Your task to perform on an android device: Search for the best 4K TV Image 0: 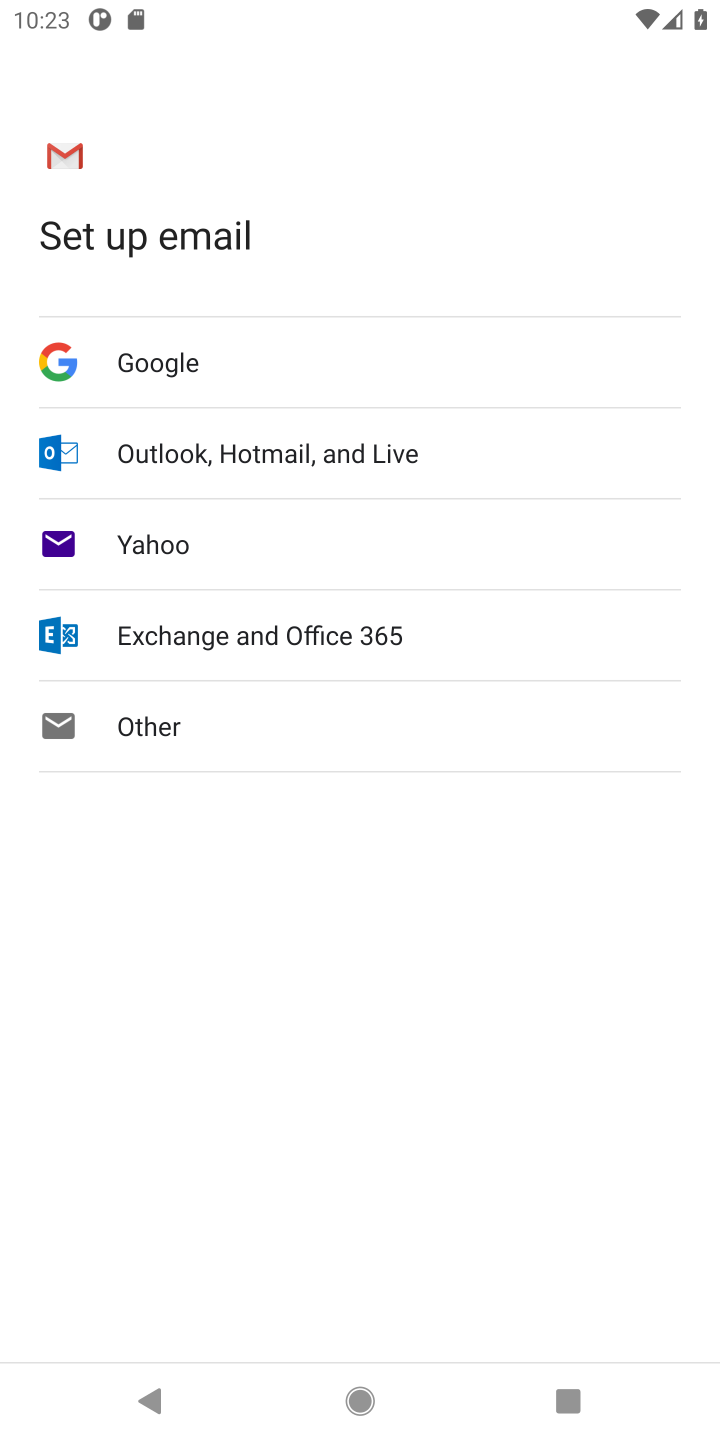
Step 0: press home button
Your task to perform on an android device: Search for the best 4K TV Image 1: 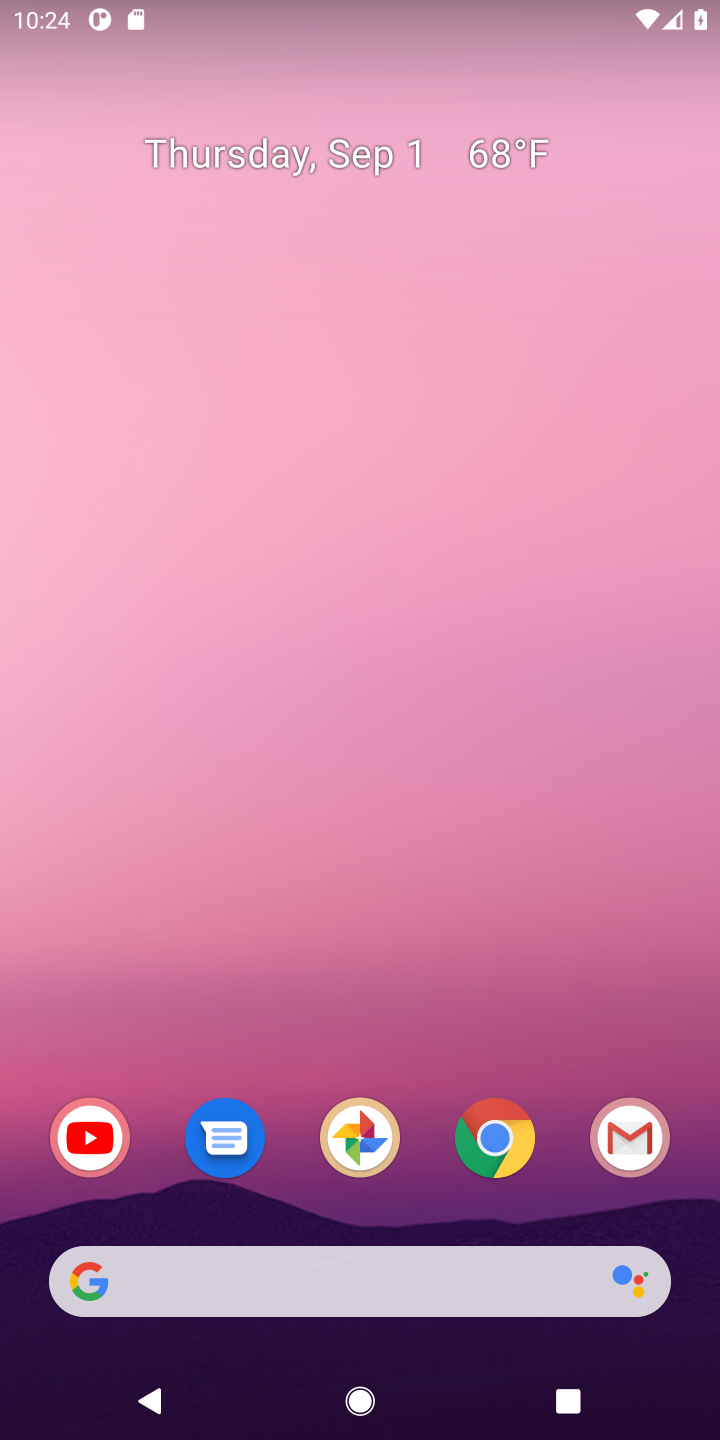
Step 1: click (501, 1139)
Your task to perform on an android device: Search for the best 4K TV Image 2: 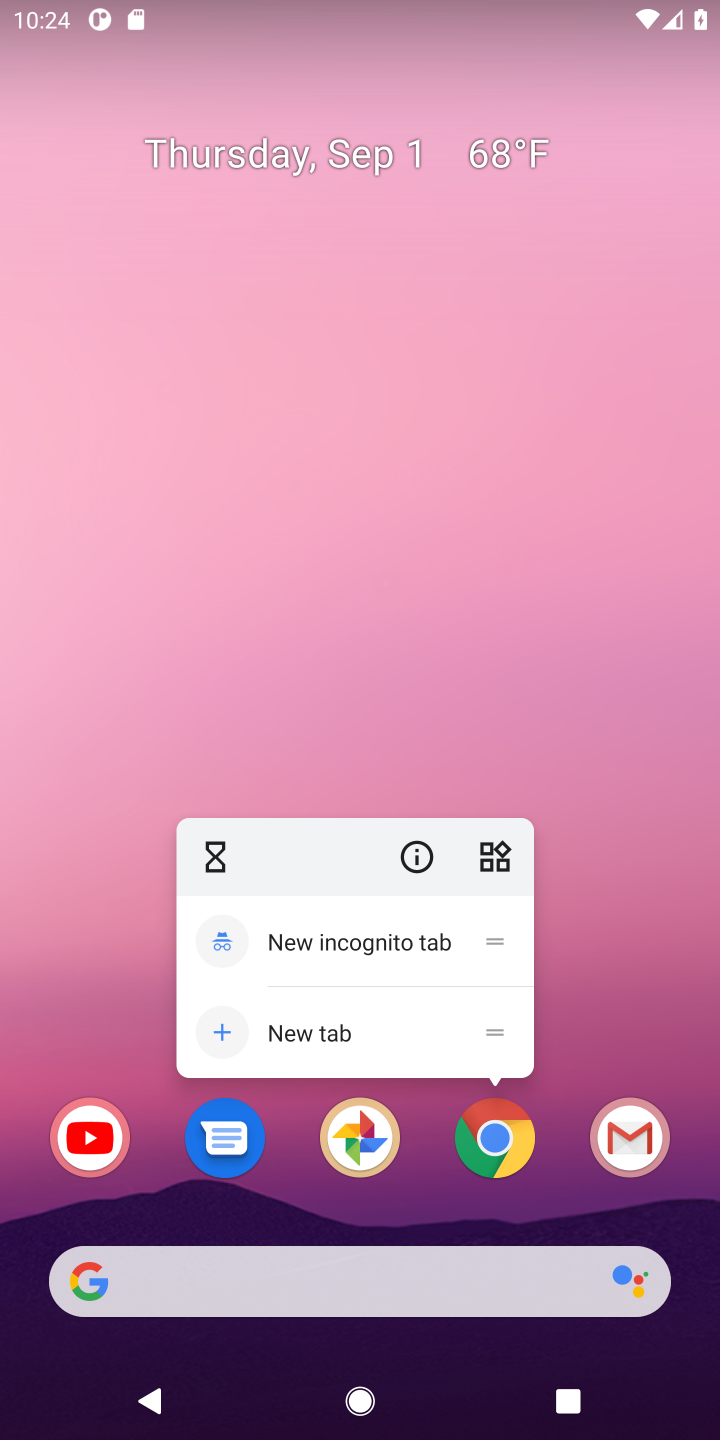
Step 2: click (501, 1139)
Your task to perform on an android device: Search for the best 4K TV Image 3: 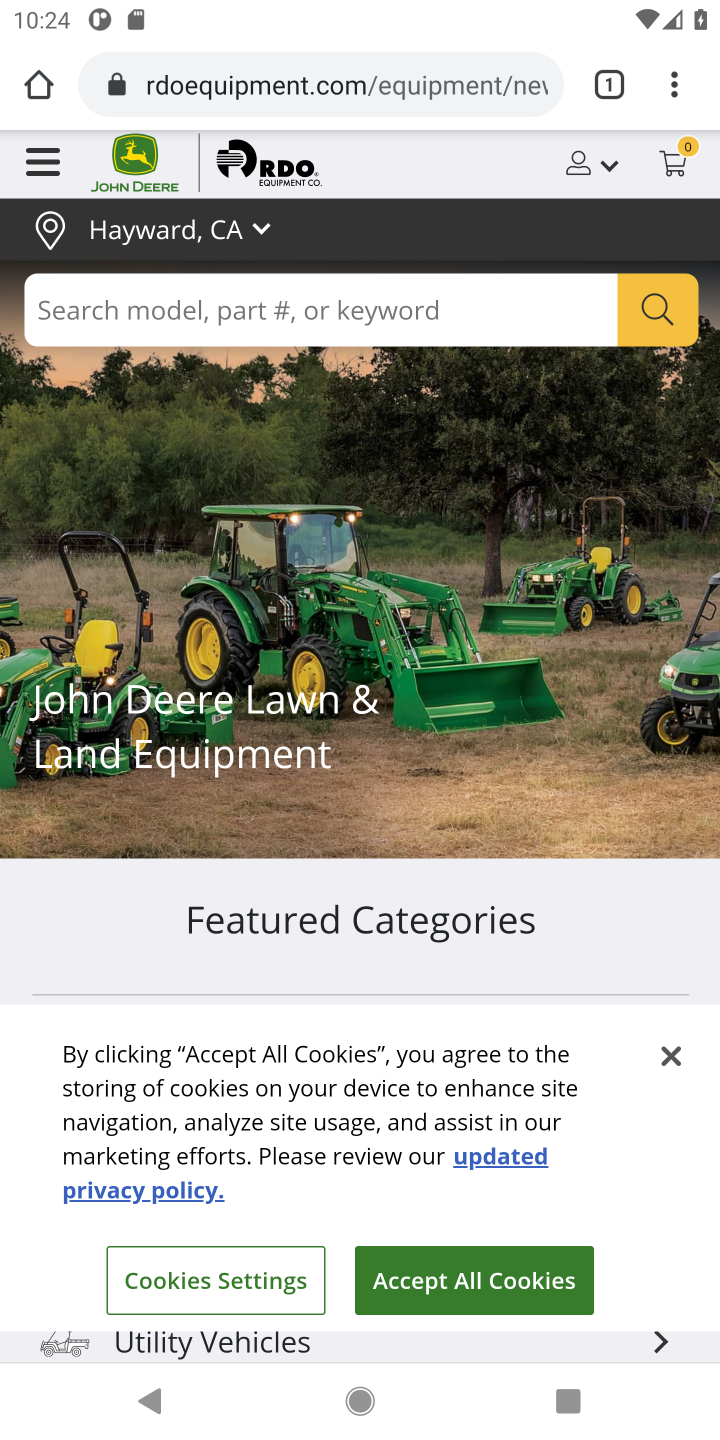
Step 3: click (256, 72)
Your task to perform on an android device: Search for the best 4K TV Image 4: 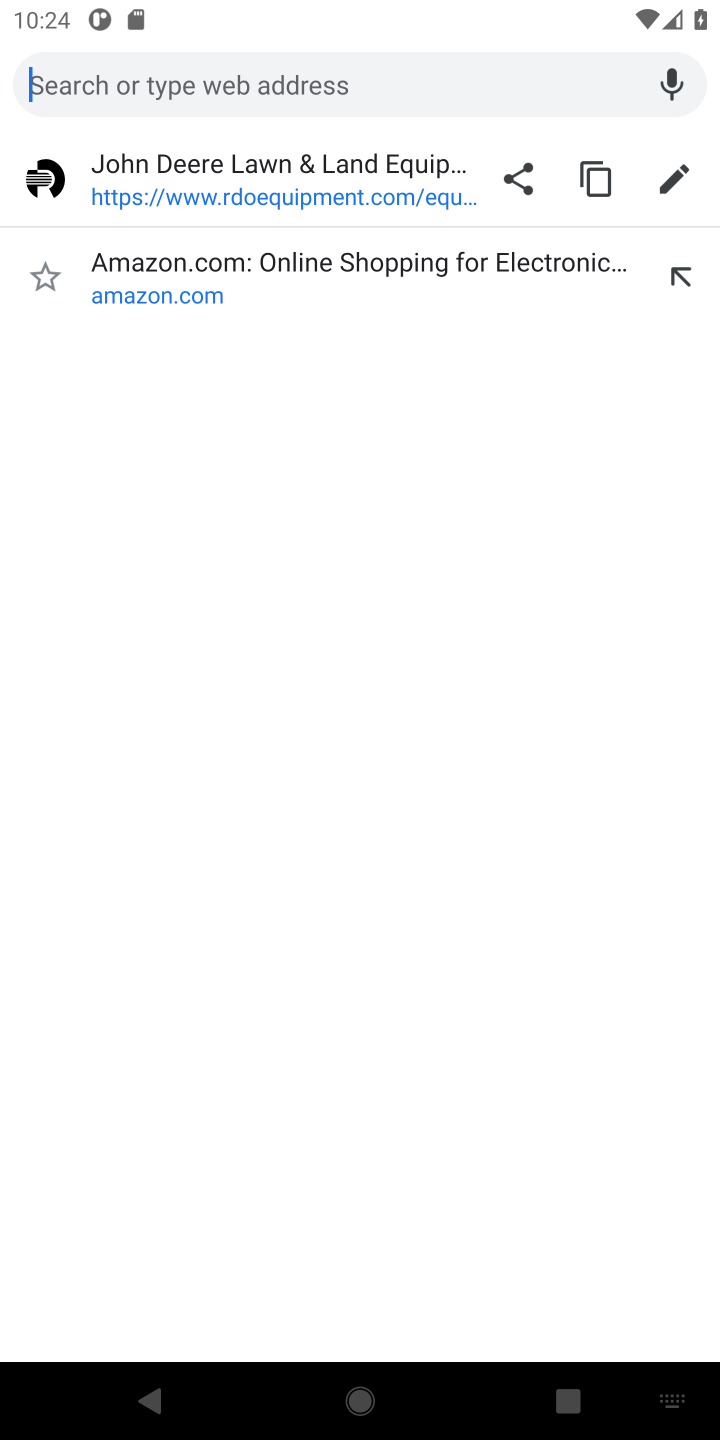
Step 4: type "best 4K TV"
Your task to perform on an android device: Search for the best 4K TV Image 5: 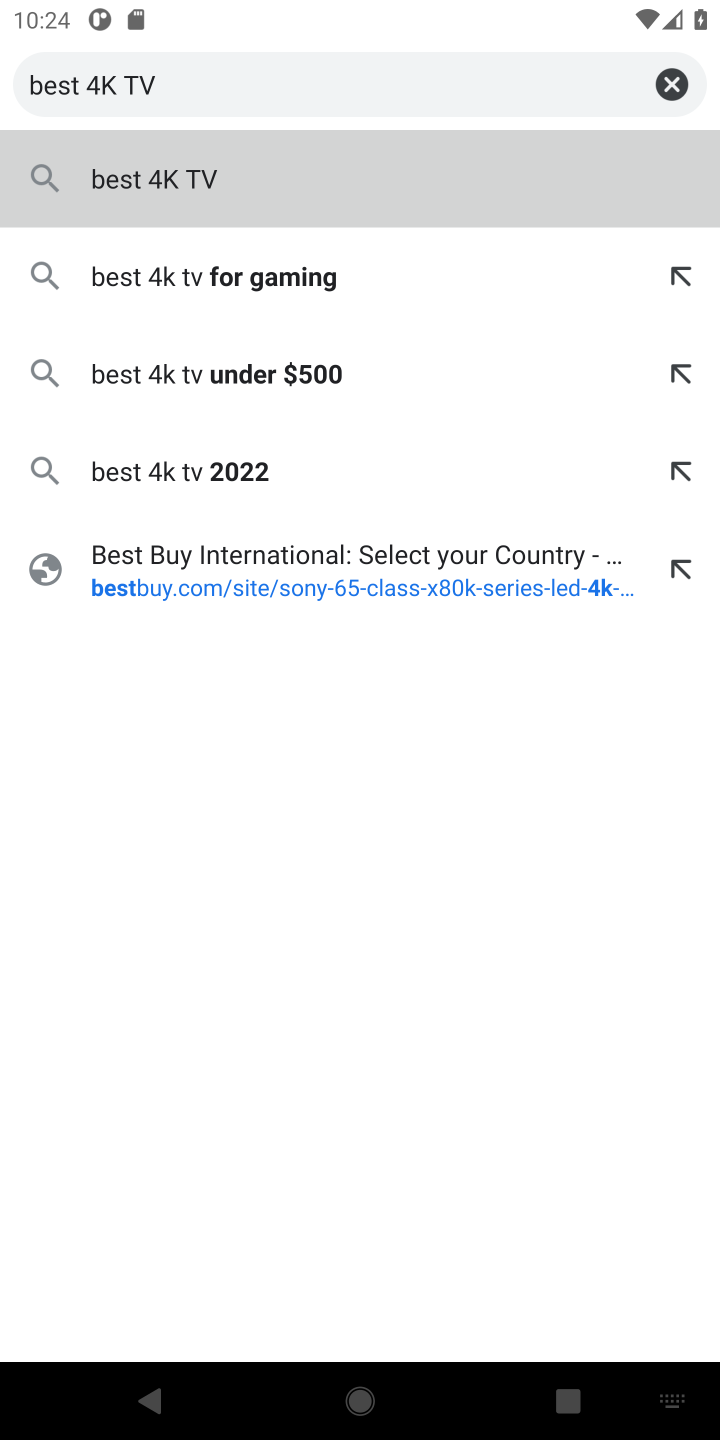
Step 5: click (139, 171)
Your task to perform on an android device: Search for the best 4K TV Image 6: 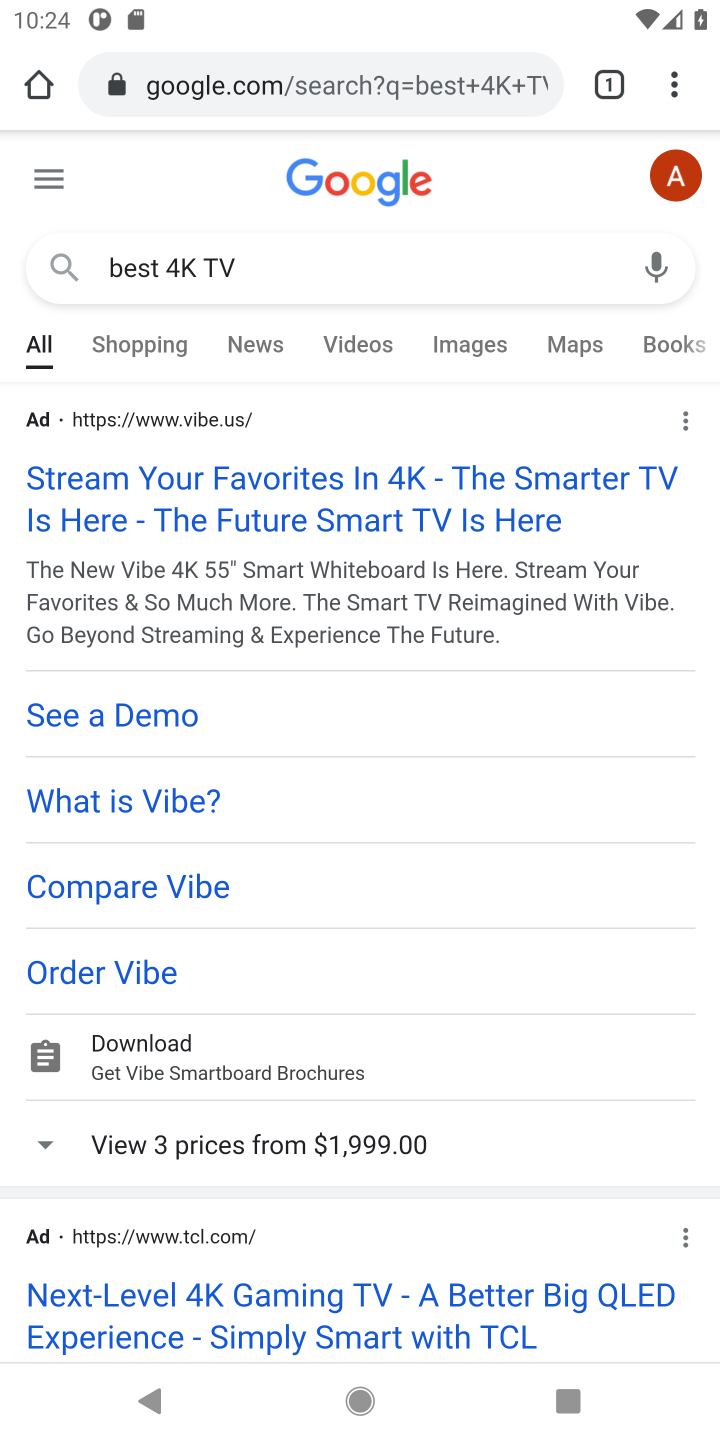
Step 6: click (120, 353)
Your task to perform on an android device: Search for the best 4K TV Image 7: 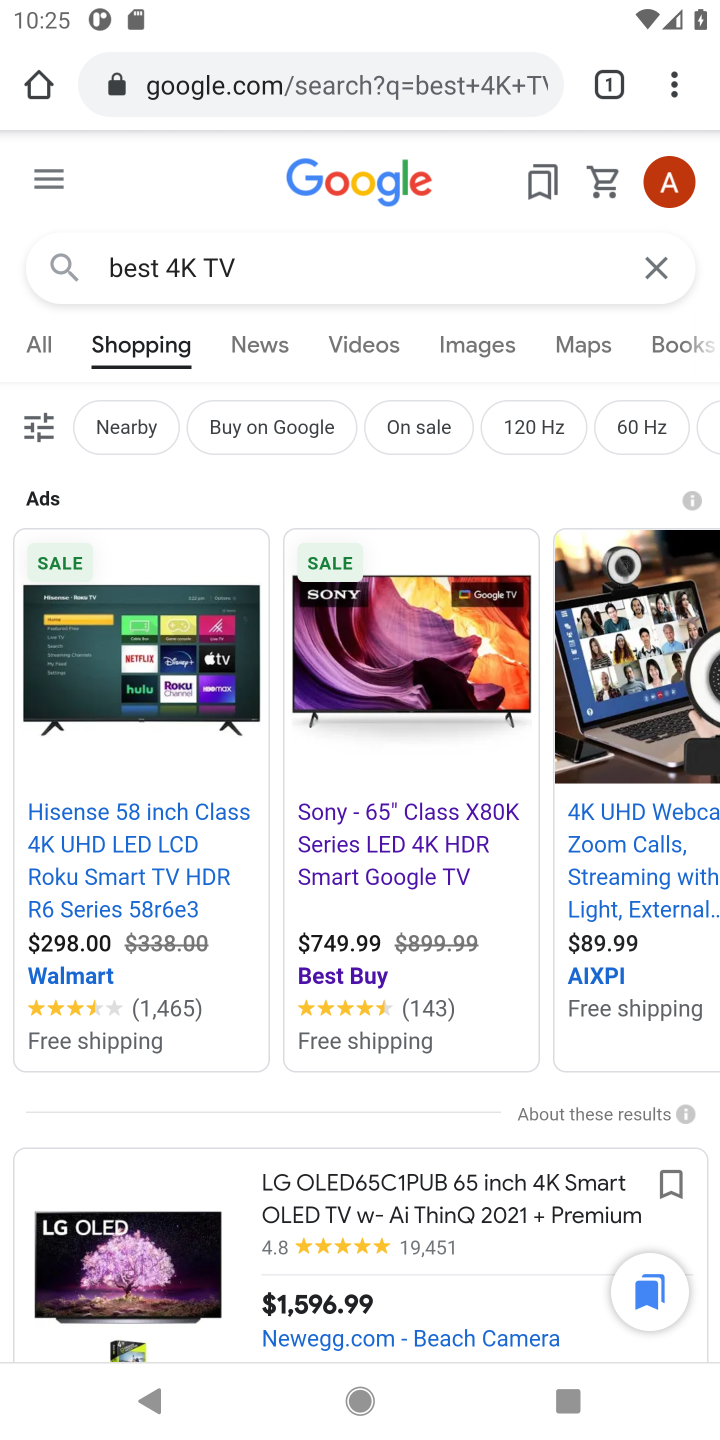
Step 7: click (195, 1008)
Your task to perform on an android device: Search for the best 4K TV Image 8: 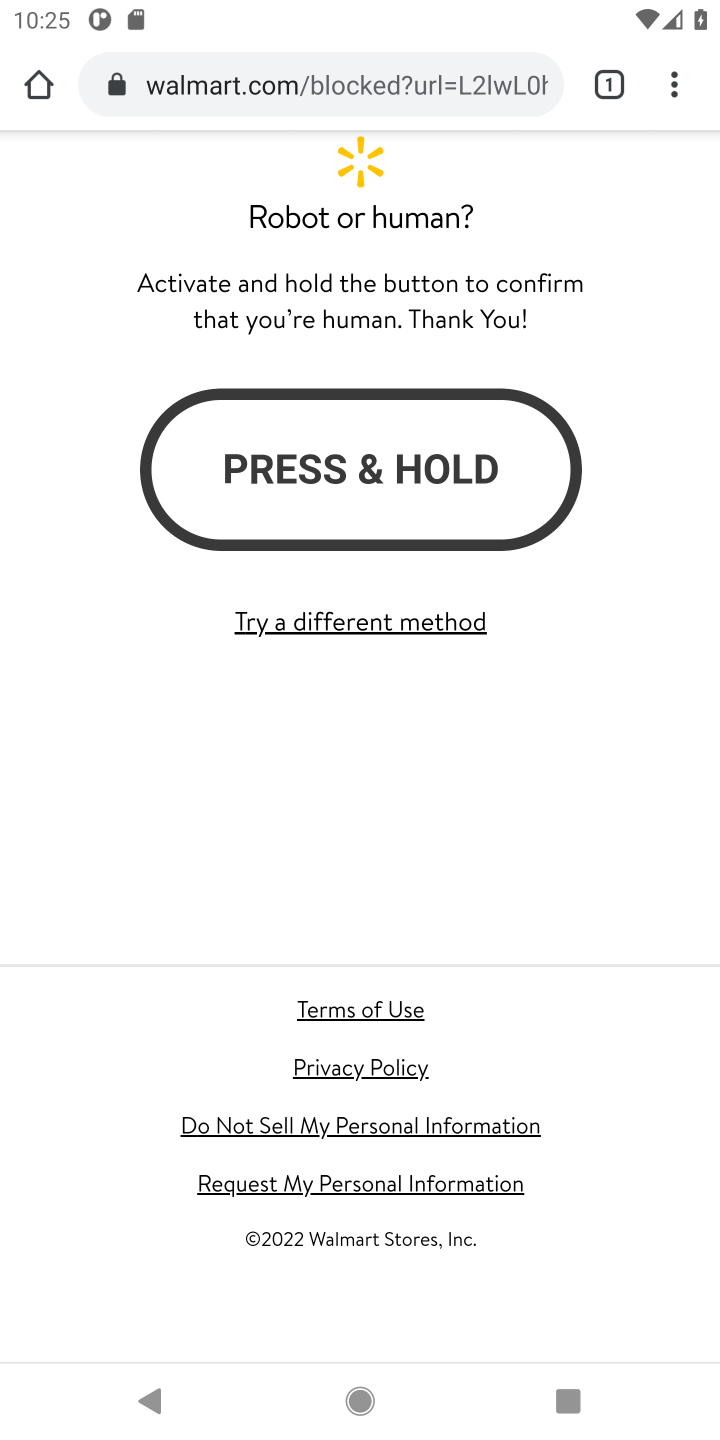
Step 8: task complete